Your task to perform on an android device: snooze an email in the gmail app Image 0: 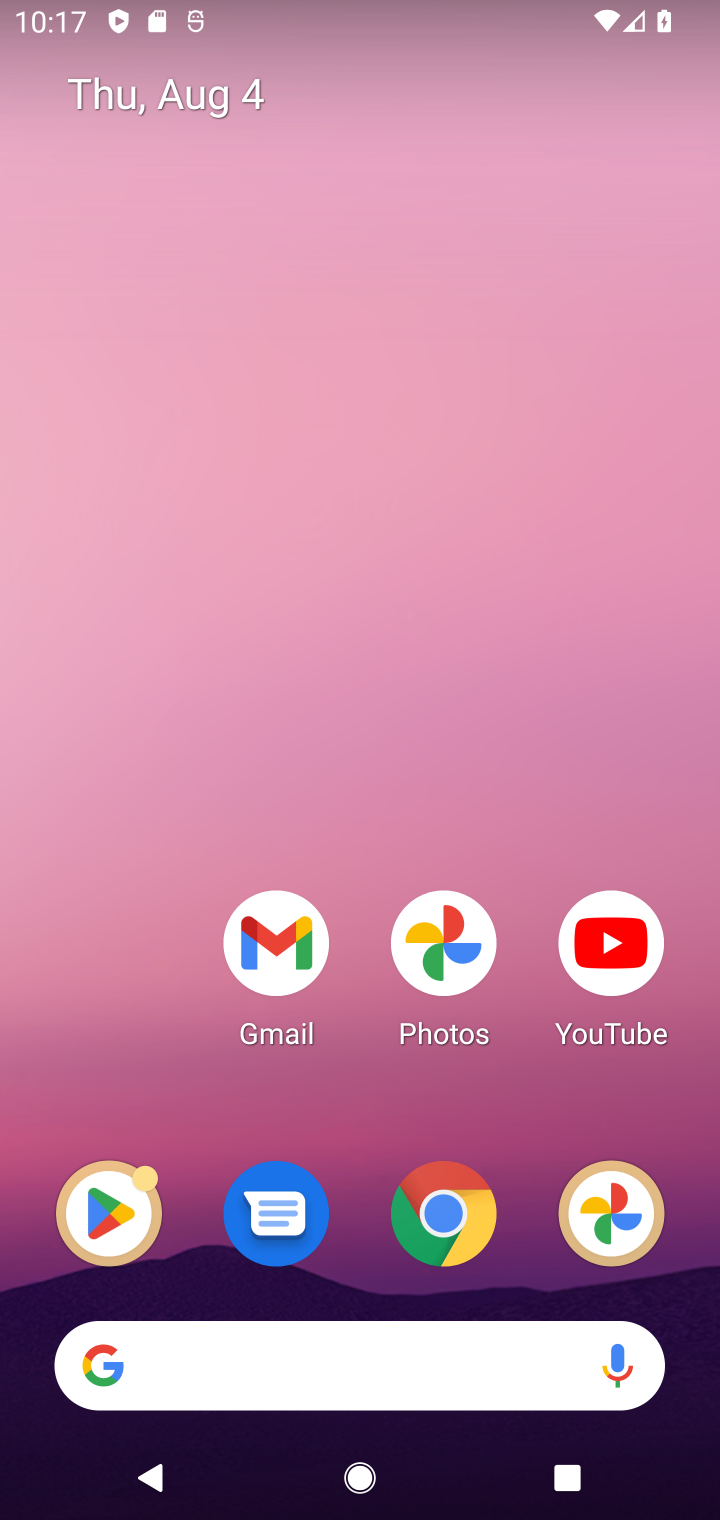
Step 0: click (298, 994)
Your task to perform on an android device: snooze an email in the gmail app Image 1: 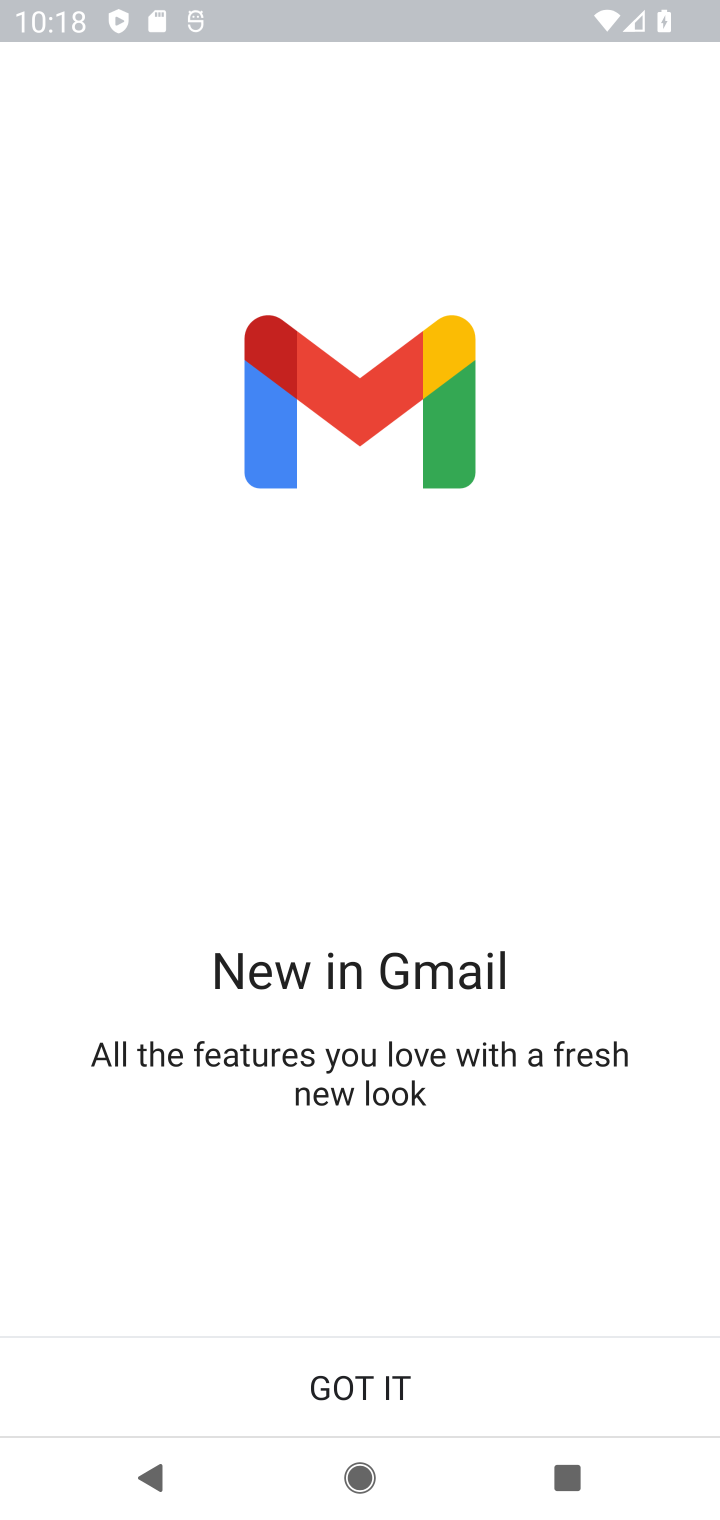
Step 1: click (478, 1381)
Your task to perform on an android device: snooze an email in the gmail app Image 2: 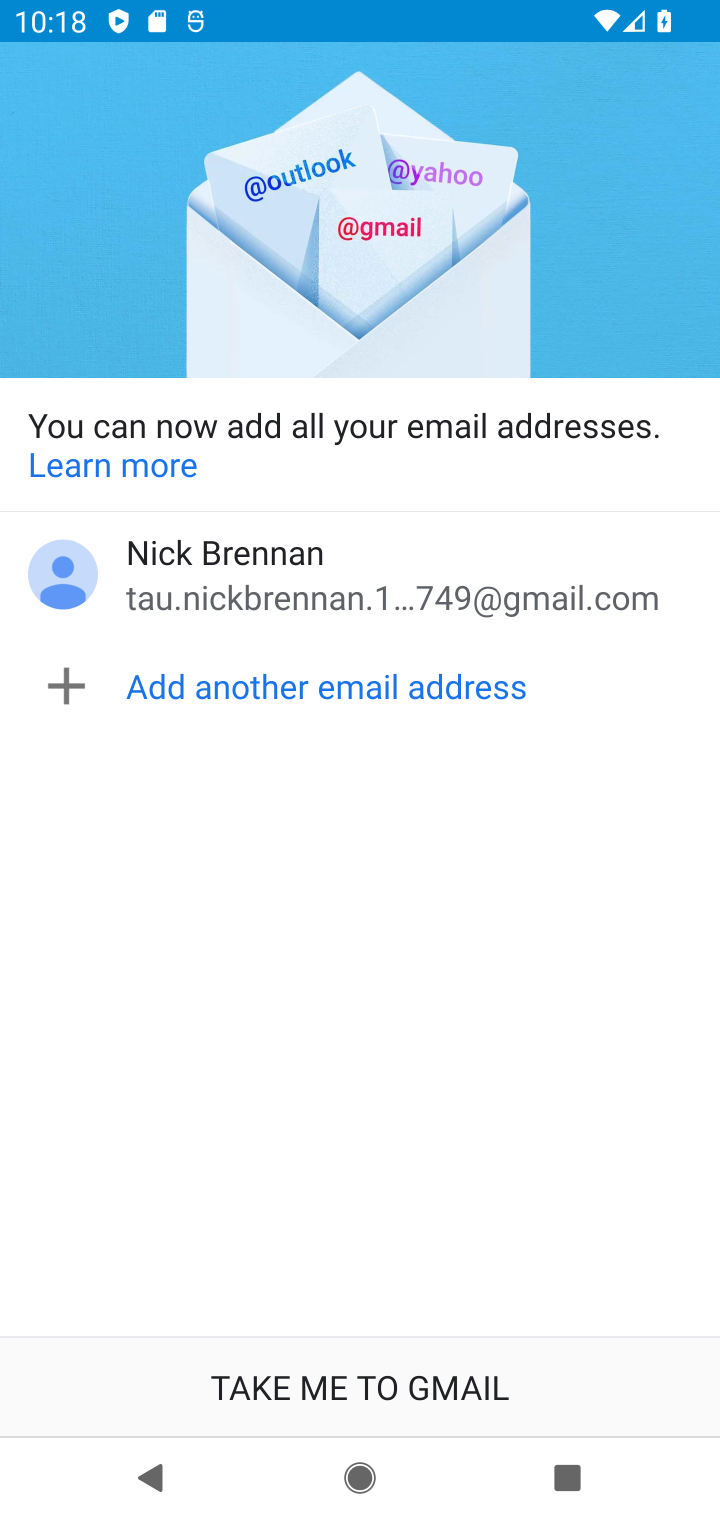
Step 2: click (384, 1368)
Your task to perform on an android device: snooze an email in the gmail app Image 3: 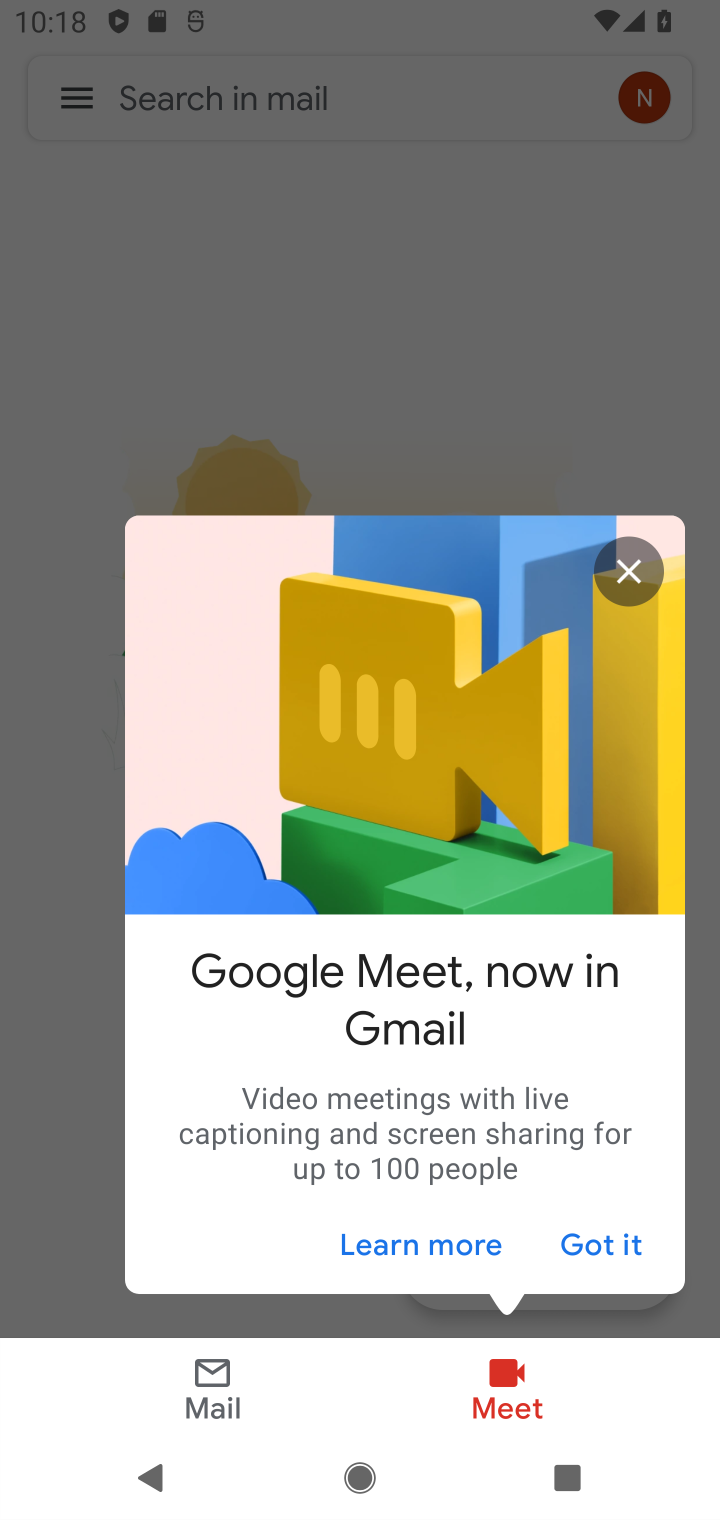
Step 3: click (114, 117)
Your task to perform on an android device: snooze an email in the gmail app Image 4: 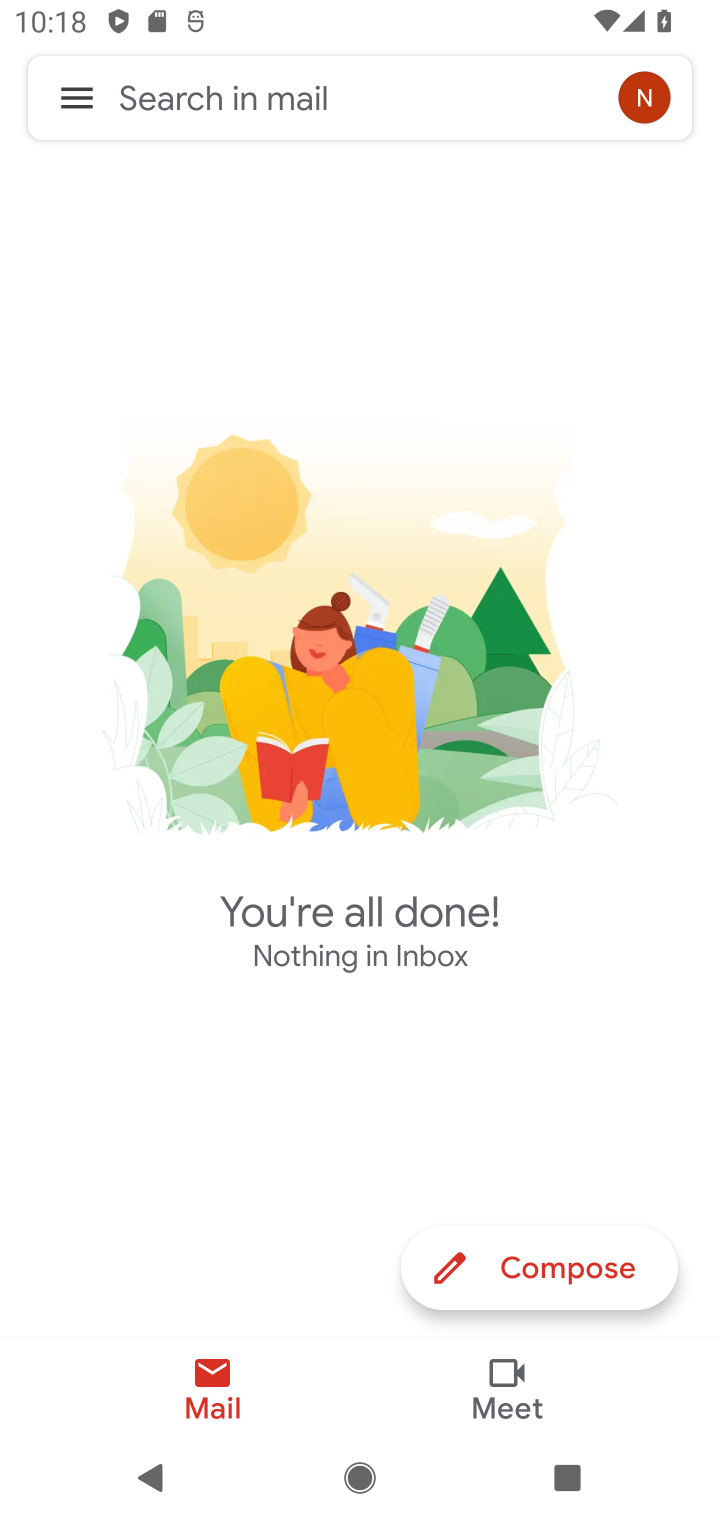
Step 4: click (608, 570)
Your task to perform on an android device: snooze an email in the gmail app Image 5: 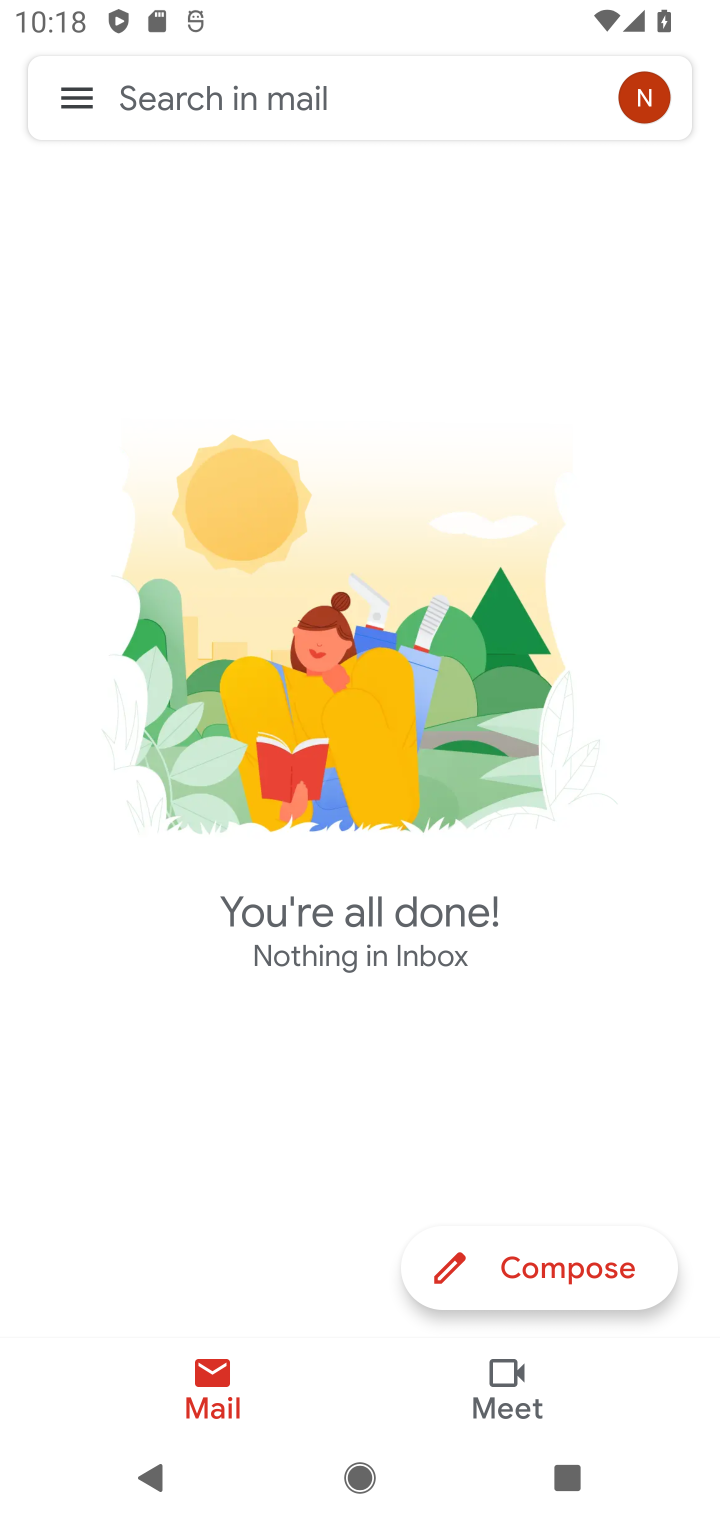
Step 5: click (87, 106)
Your task to perform on an android device: snooze an email in the gmail app Image 6: 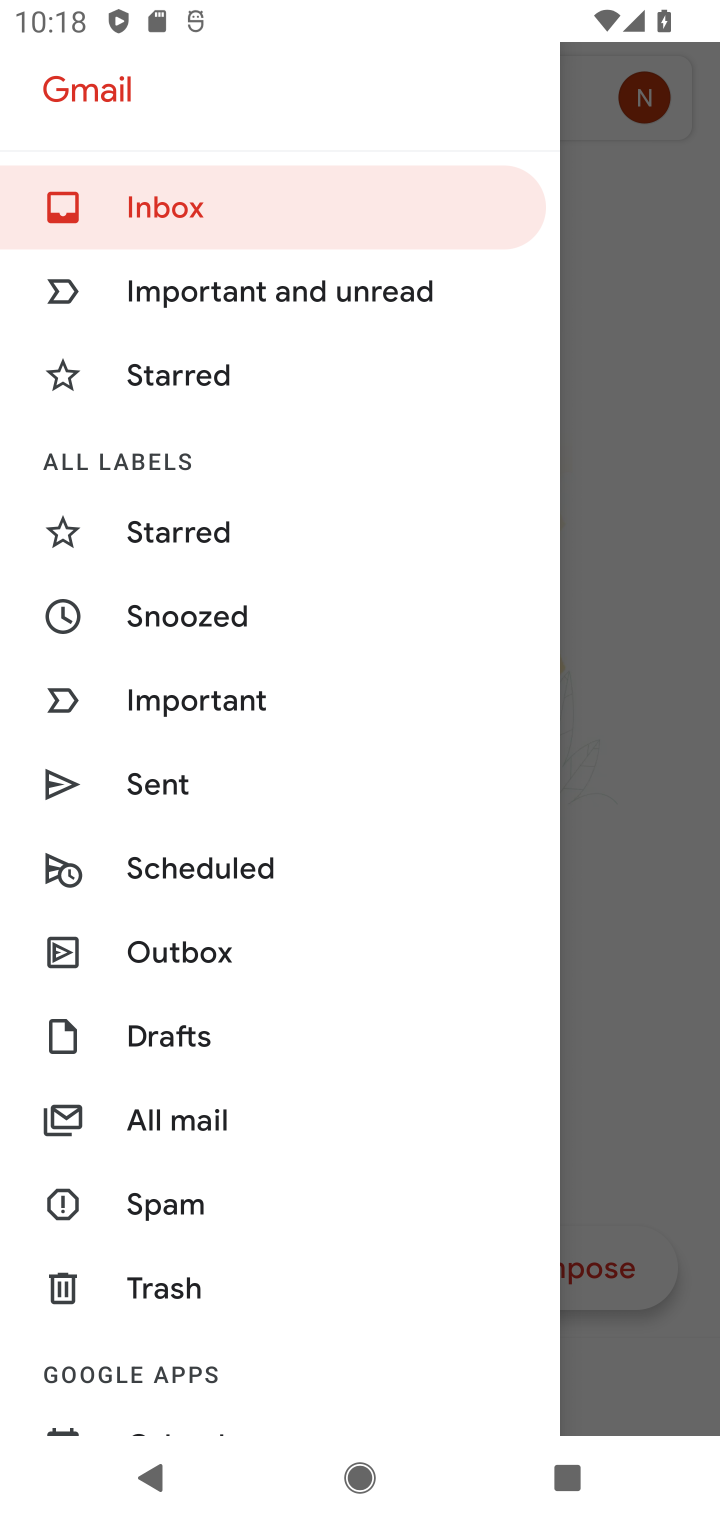
Step 6: click (187, 1112)
Your task to perform on an android device: snooze an email in the gmail app Image 7: 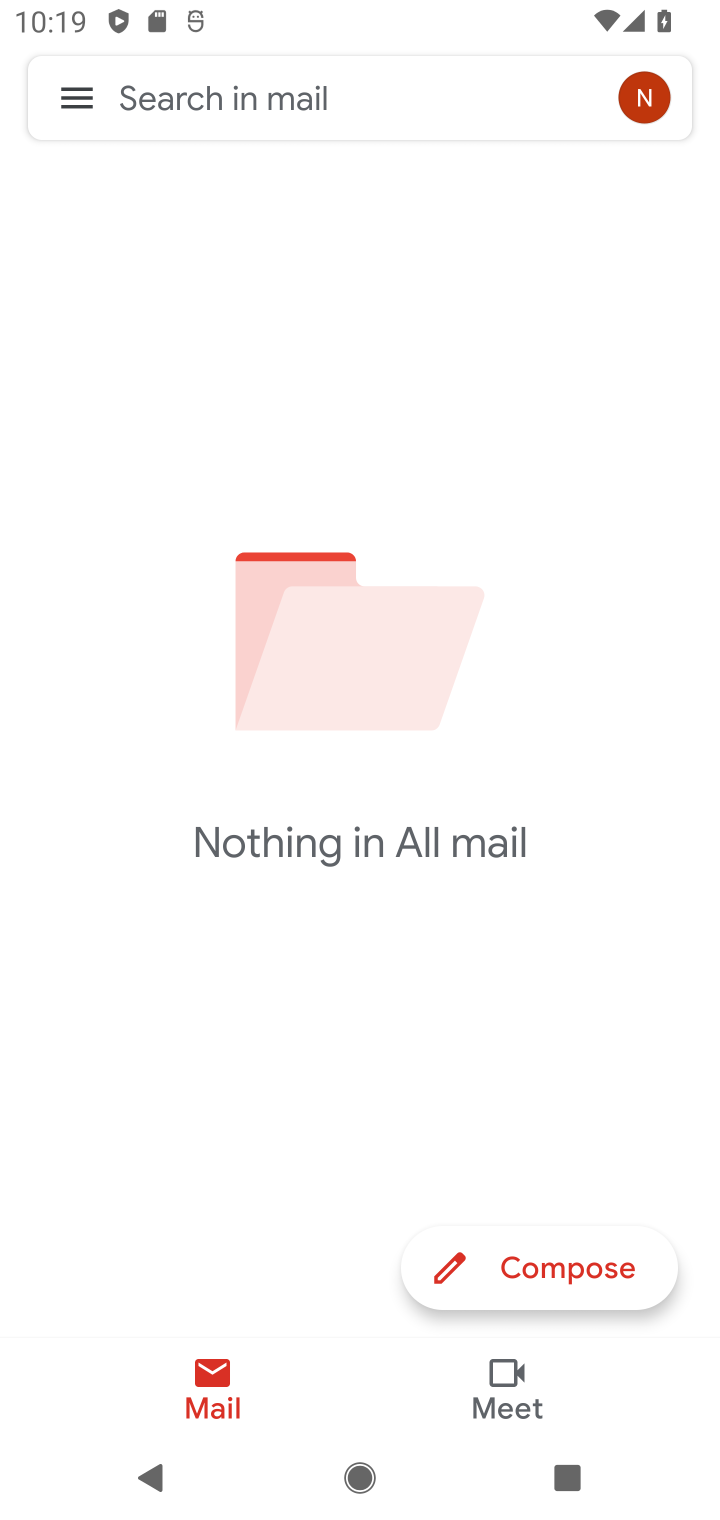
Step 7: press home button
Your task to perform on an android device: snooze an email in the gmail app Image 8: 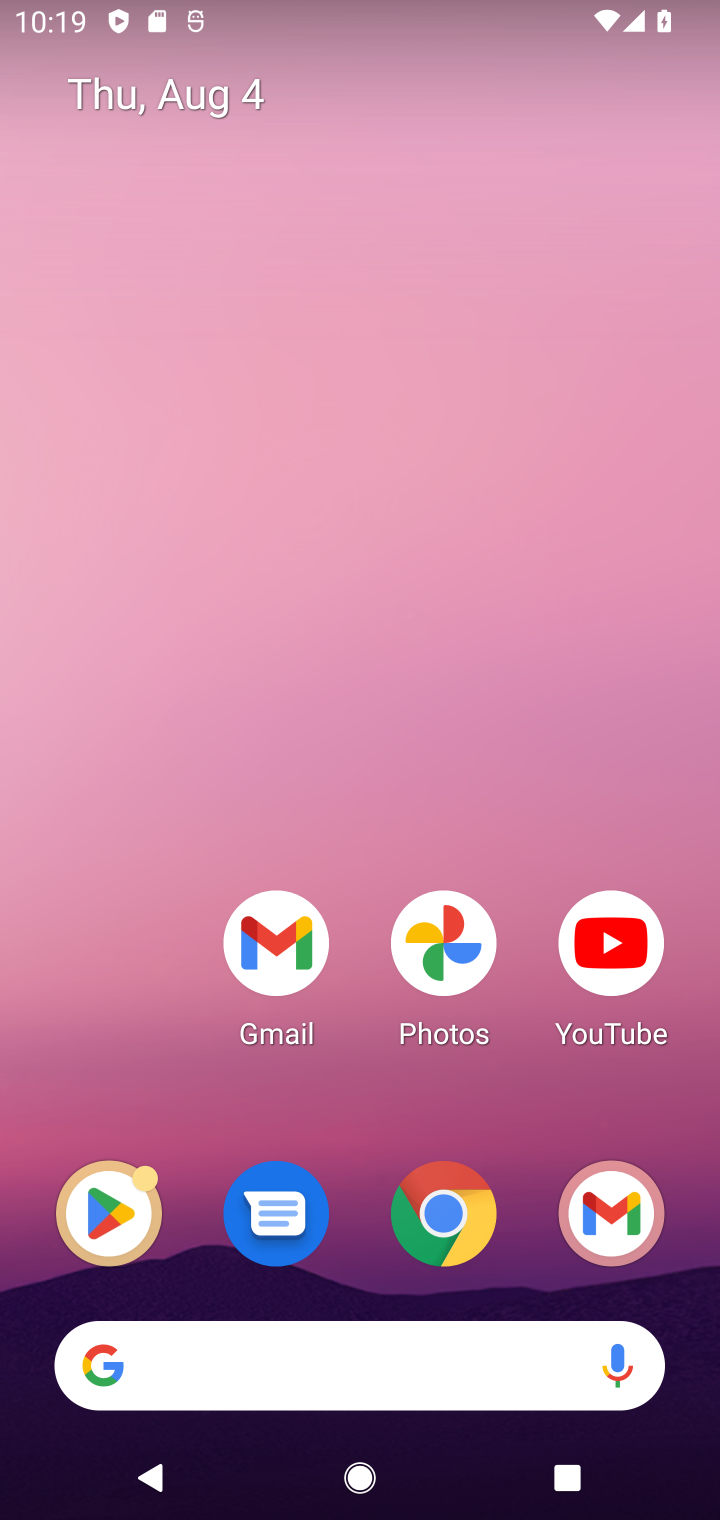
Step 8: click (309, 949)
Your task to perform on an android device: snooze an email in the gmail app Image 9: 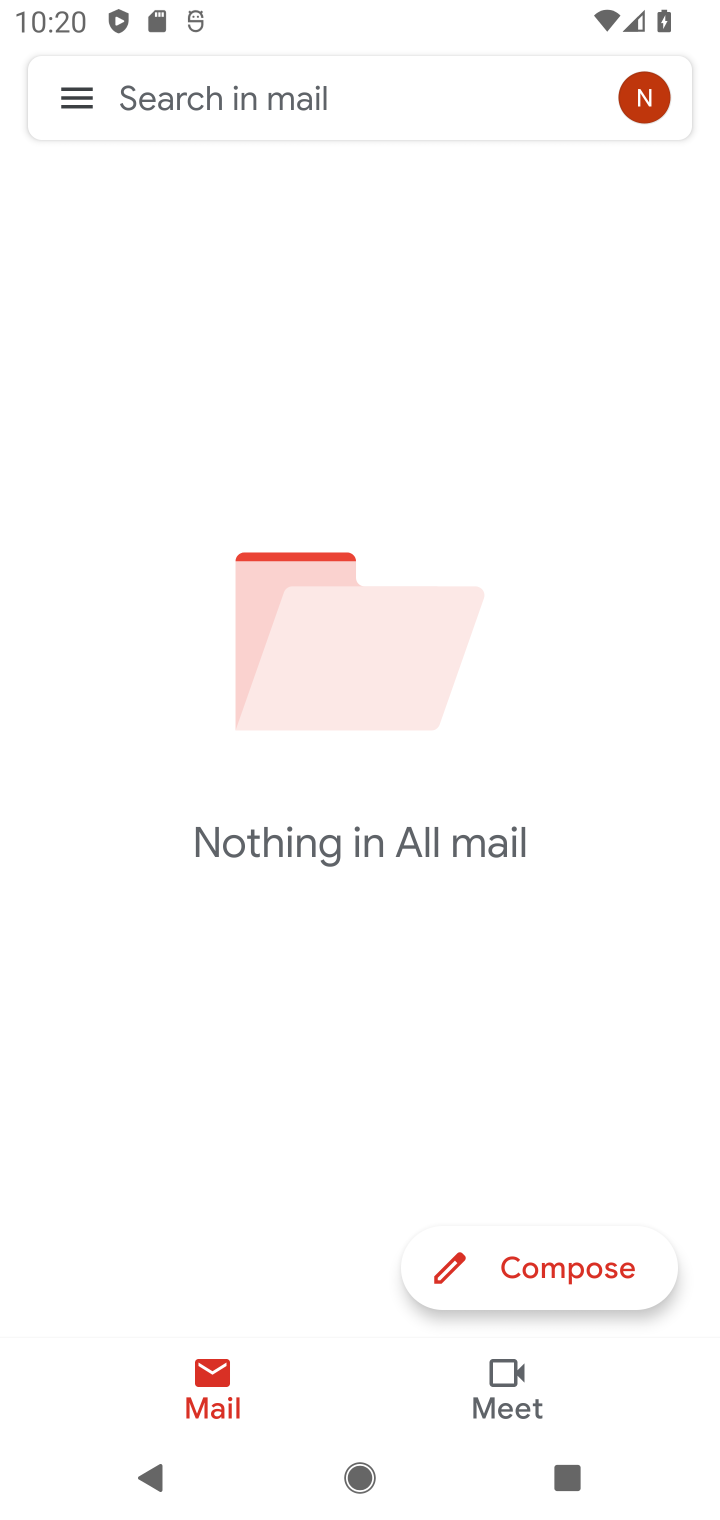
Step 9: task complete